Your task to perform on an android device: add a contact Image 0: 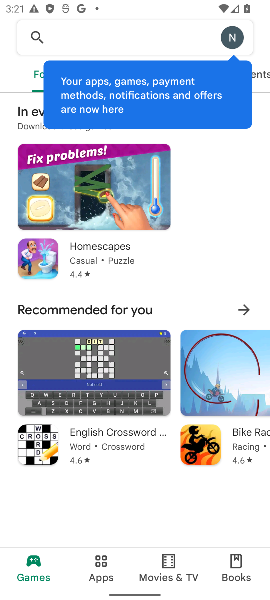
Step 0: press home button
Your task to perform on an android device: add a contact Image 1: 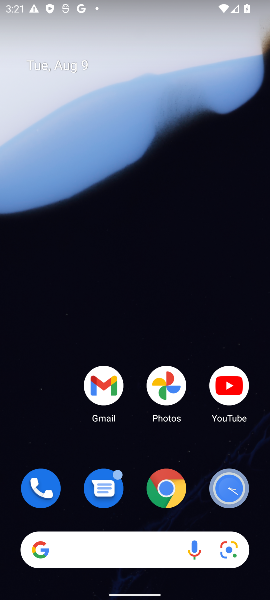
Step 1: drag from (203, 435) to (172, 133)
Your task to perform on an android device: add a contact Image 2: 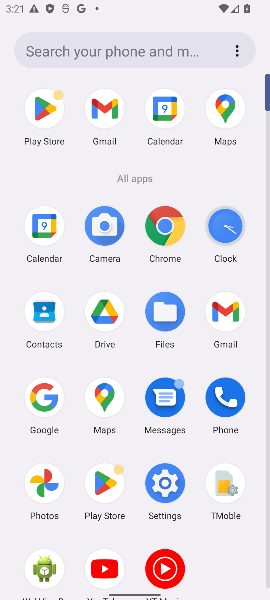
Step 2: click (49, 310)
Your task to perform on an android device: add a contact Image 3: 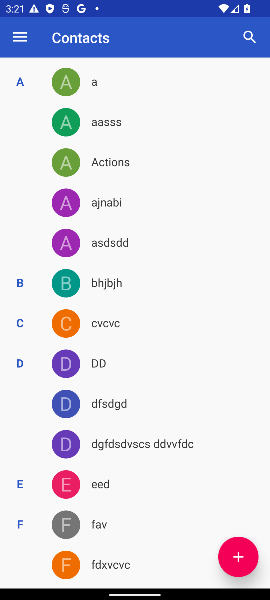
Step 3: click (229, 563)
Your task to perform on an android device: add a contact Image 4: 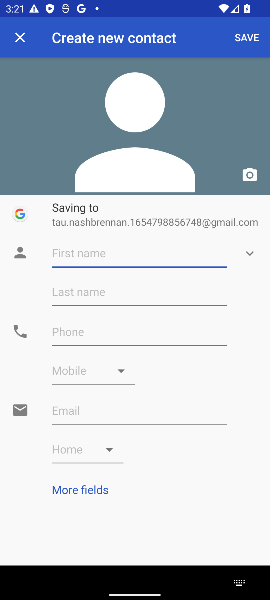
Step 4: type "fgfdf"
Your task to perform on an android device: add a contact Image 5: 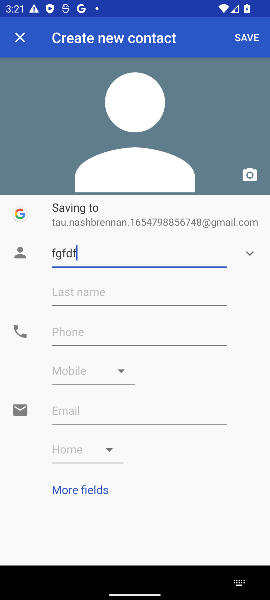
Step 5: click (203, 329)
Your task to perform on an android device: add a contact Image 6: 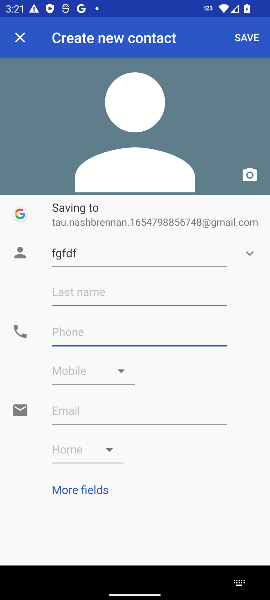
Step 6: type "2224542"
Your task to perform on an android device: add a contact Image 7: 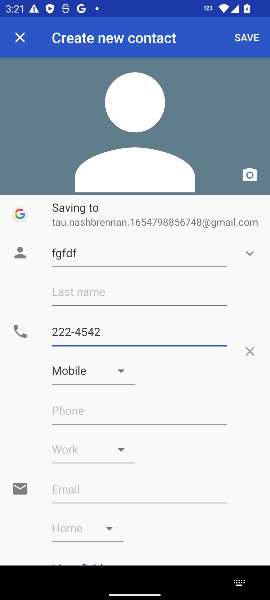
Step 7: click (250, 37)
Your task to perform on an android device: add a contact Image 8: 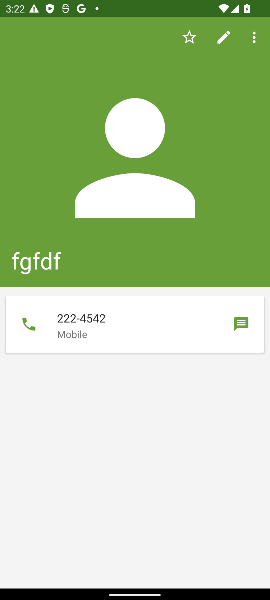
Step 8: task complete